Your task to perform on an android device: toggle sleep mode Image 0: 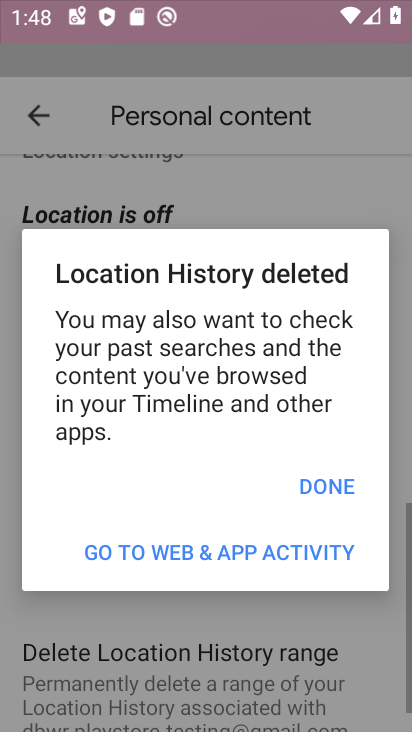
Step 0: drag from (324, 308) to (337, 83)
Your task to perform on an android device: toggle sleep mode Image 1: 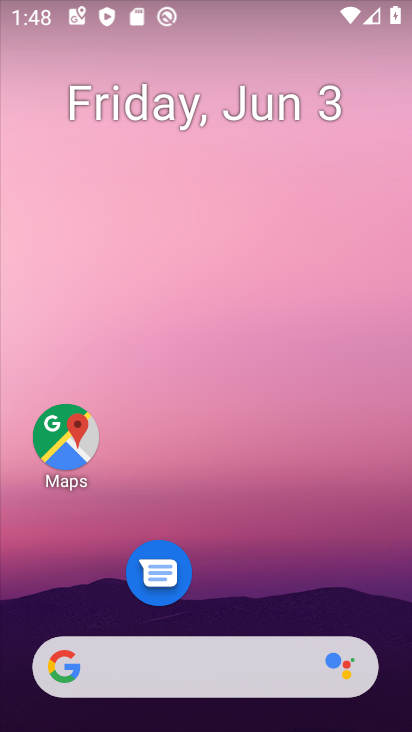
Step 1: drag from (298, 611) to (355, 69)
Your task to perform on an android device: toggle sleep mode Image 2: 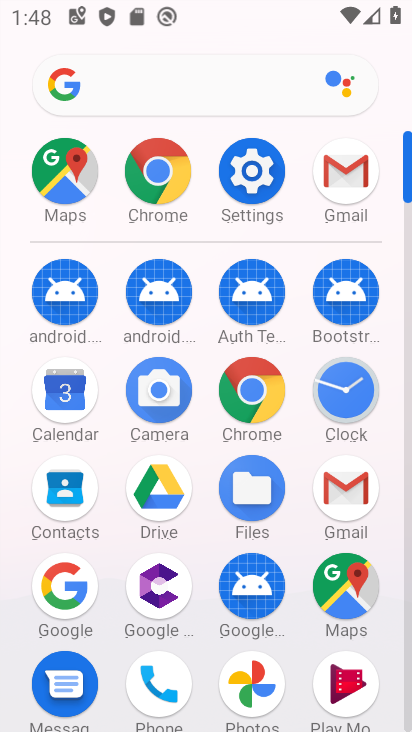
Step 2: click (258, 171)
Your task to perform on an android device: toggle sleep mode Image 3: 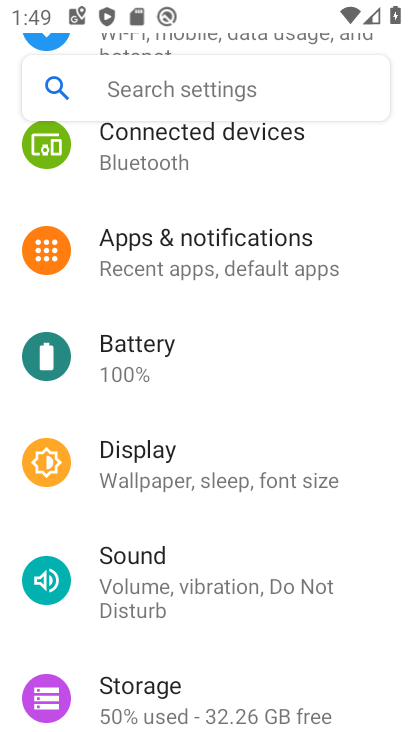
Step 3: drag from (189, 645) to (187, 518)
Your task to perform on an android device: toggle sleep mode Image 4: 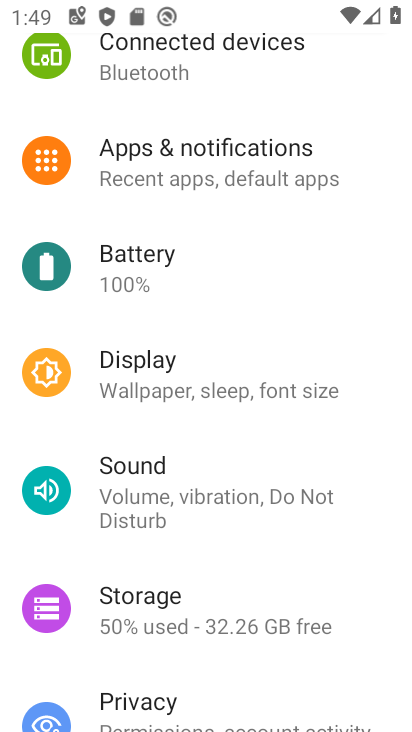
Step 4: click (221, 388)
Your task to perform on an android device: toggle sleep mode Image 5: 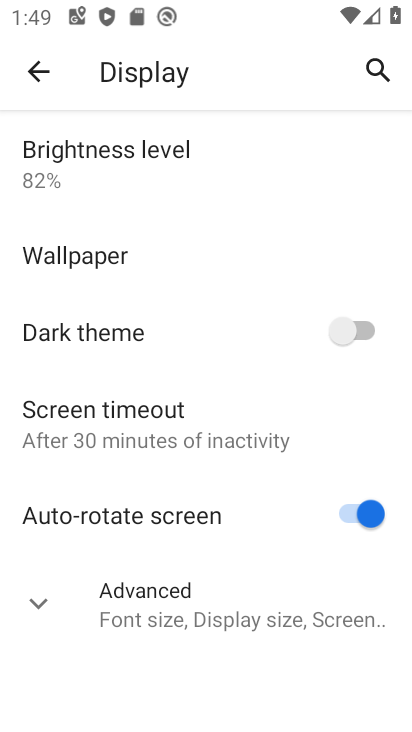
Step 5: task complete